Your task to perform on an android device: stop showing notifications on the lock screen Image 0: 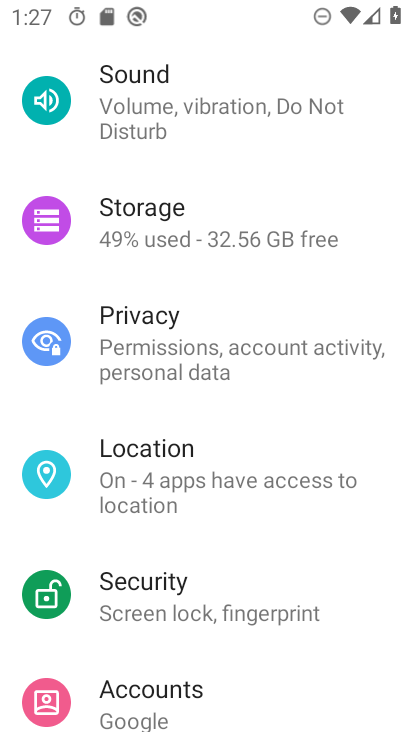
Step 0: press home button
Your task to perform on an android device: stop showing notifications on the lock screen Image 1: 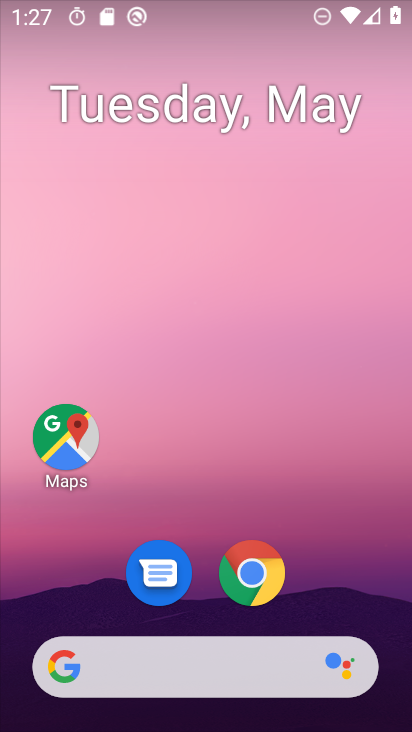
Step 1: drag from (347, 516) to (373, 76)
Your task to perform on an android device: stop showing notifications on the lock screen Image 2: 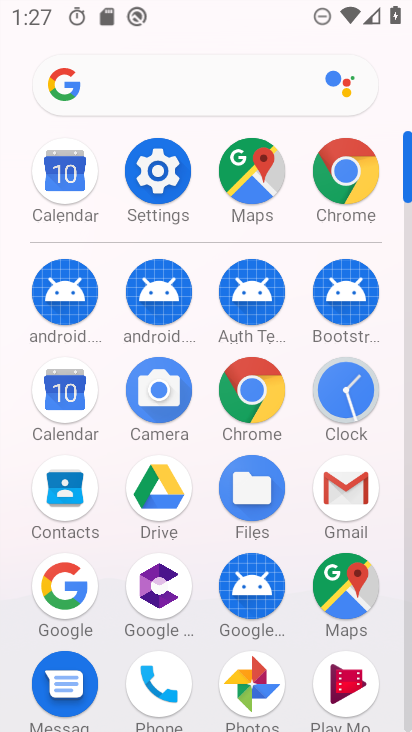
Step 2: click (158, 161)
Your task to perform on an android device: stop showing notifications on the lock screen Image 3: 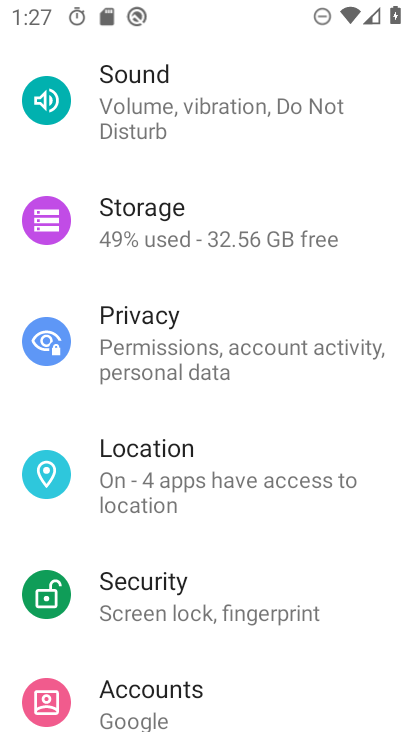
Step 3: drag from (221, 221) to (266, 547)
Your task to perform on an android device: stop showing notifications on the lock screen Image 4: 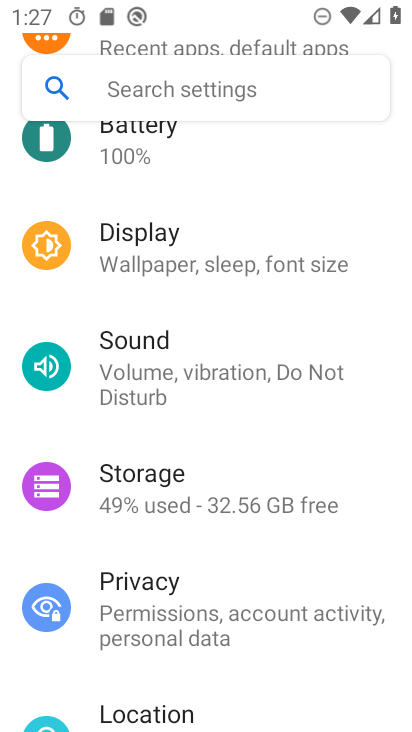
Step 4: drag from (202, 238) to (239, 519)
Your task to perform on an android device: stop showing notifications on the lock screen Image 5: 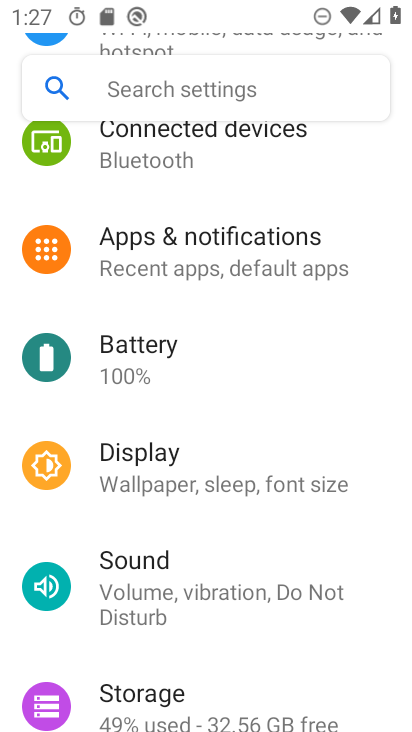
Step 5: click (209, 256)
Your task to perform on an android device: stop showing notifications on the lock screen Image 6: 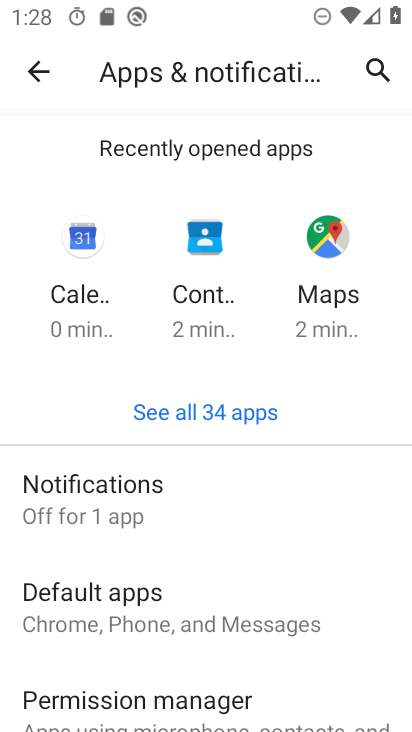
Step 6: click (86, 500)
Your task to perform on an android device: stop showing notifications on the lock screen Image 7: 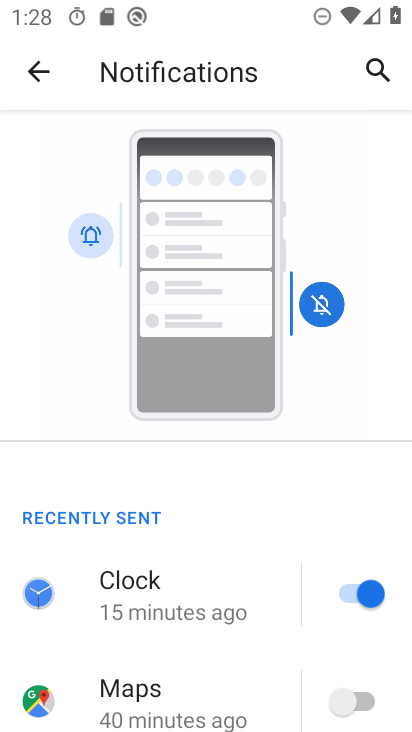
Step 7: drag from (241, 671) to (247, 309)
Your task to perform on an android device: stop showing notifications on the lock screen Image 8: 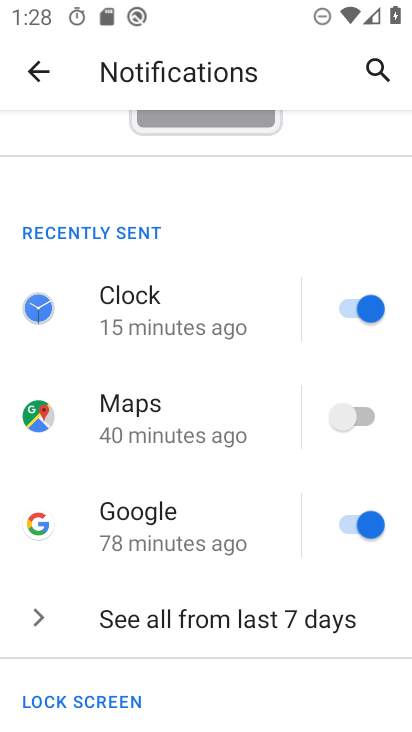
Step 8: drag from (238, 578) to (220, 333)
Your task to perform on an android device: stop showing notifications on the lock screen Image 9: 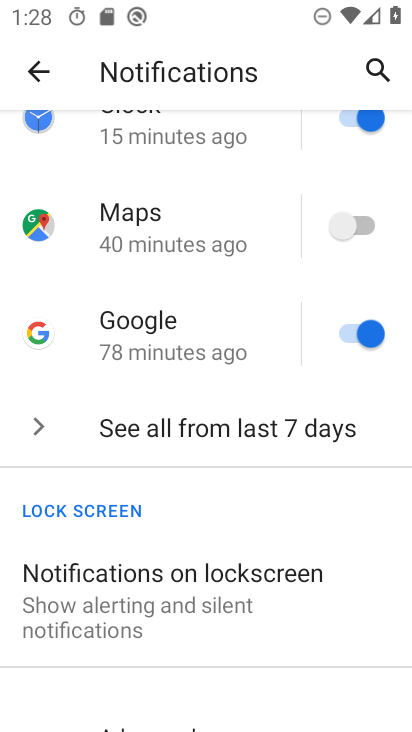
Step 9: click (125, 600)
Your task to perform on an android device: stop showing notifications on the lock screen Image 10: 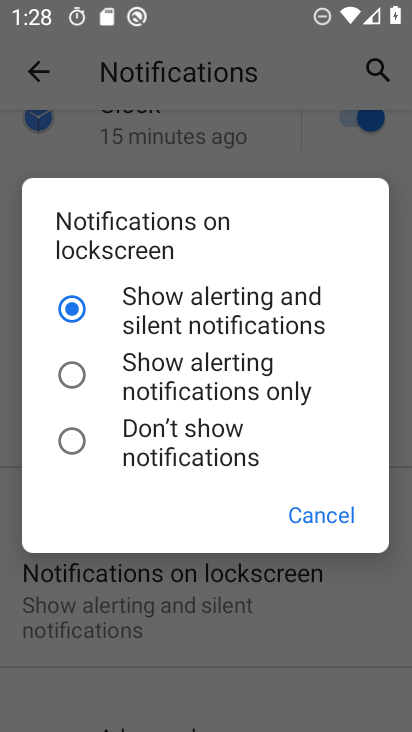
Step 10: click (71, 454)
Your task to perform on an android device: stop showing notifications on the lock screen Image 11: 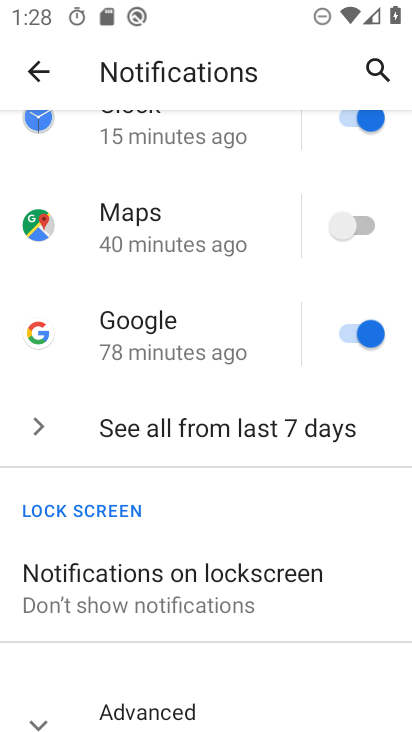
Step 11: task complete